Your task to perform on an android device: change the clock display to show seconds Image 0: 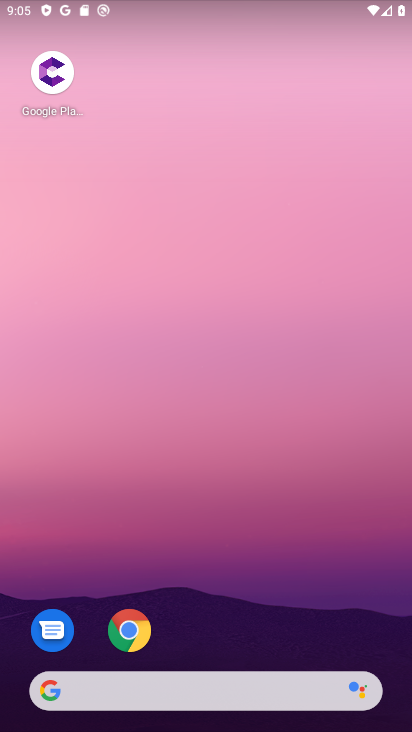
Step 0: drag from (347, 625) to (210, 0)
Your task to perform on an android device: change the clock display to show seconds Image 1: 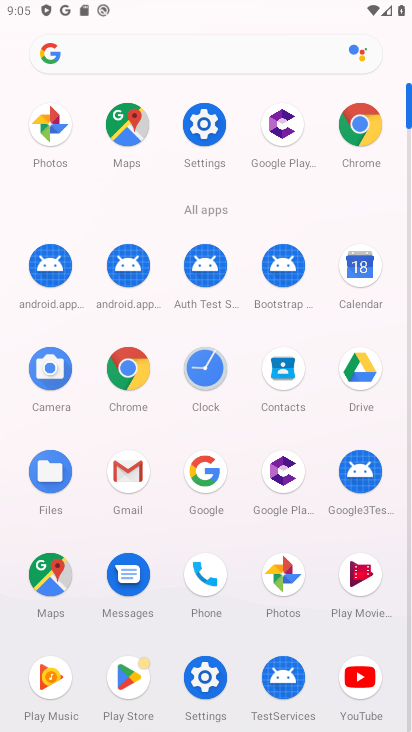
Step 1: click (198, 376)
Your task to perform on an android device: change the clock display to show seconds Image 2: 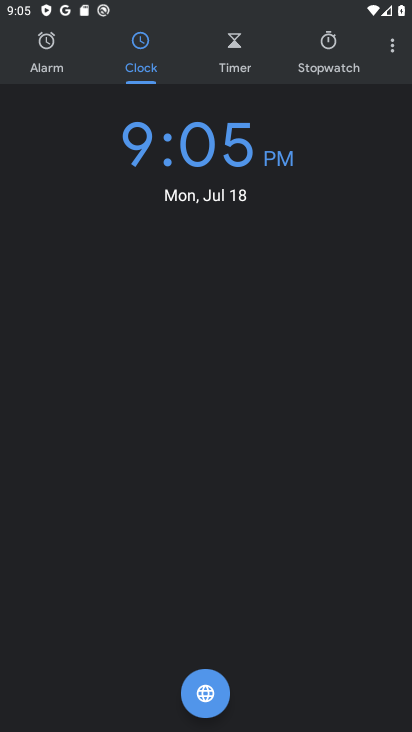
Step 2: click (385, 45)
Your task to perform on an android device: change the clock display to show seconds Image 3: 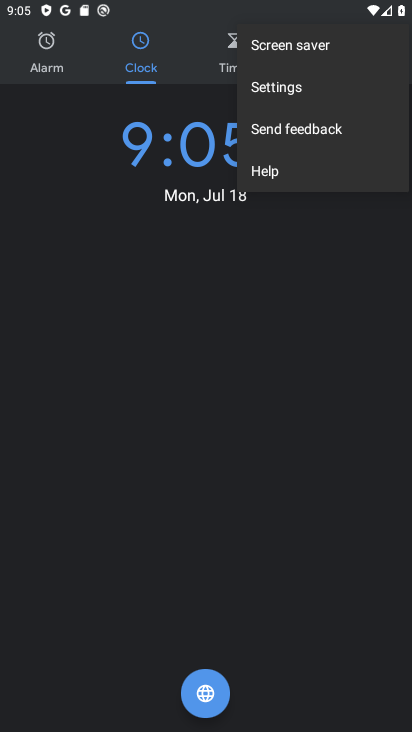
Step 3: click (295, 90)
Your task to perform on an android device: change the clock display to show seconds Image 4: 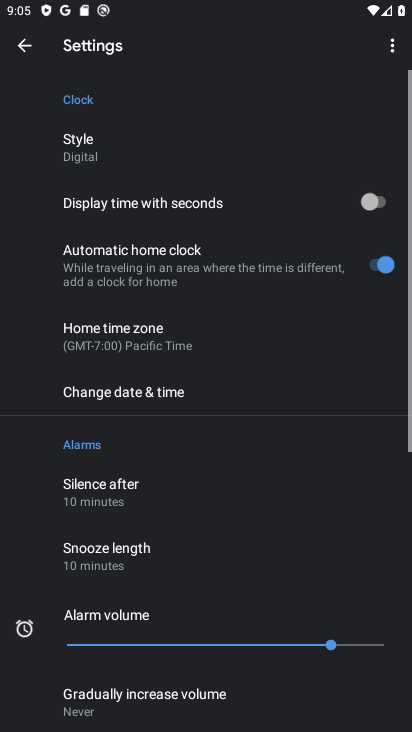
Step 4: click (364, 195)
Your task to perform on an android device: change the clock display to show seconds Image 5: 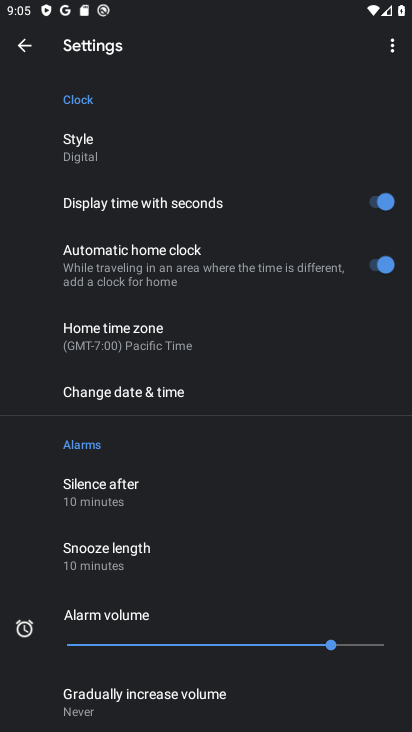
Step 5: task complete